Your task to perform on an android device: turn on bluetooth scan Image 0: 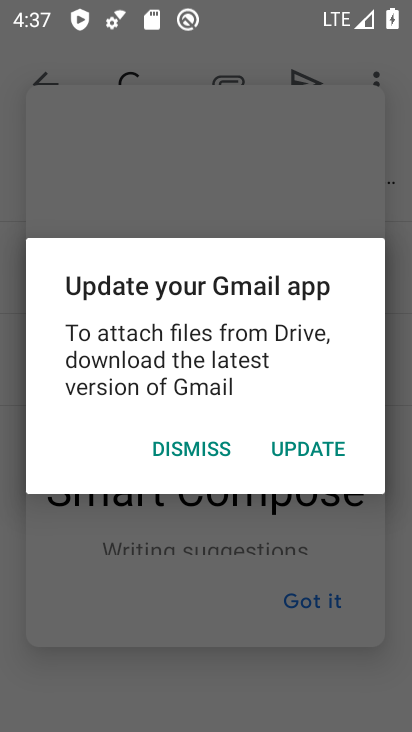
Step 0: press home button
Your task to perform on an android device: turn on bluetooth scan Image 1: 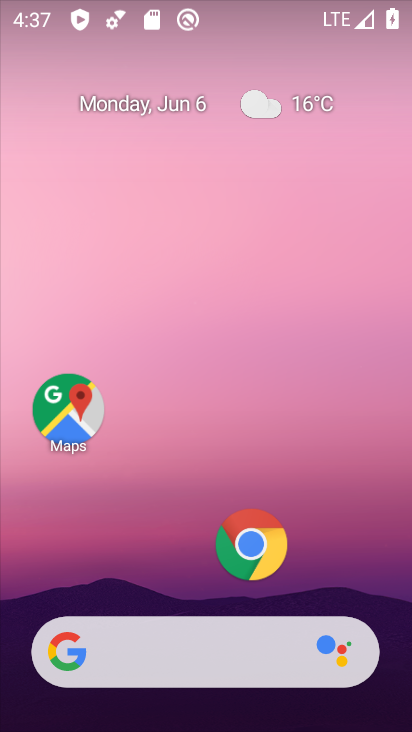
Step 1: drag from (191, 595) to (230, 49)
Your task to perform on an android device: turn on bluetooth scan Image 2: 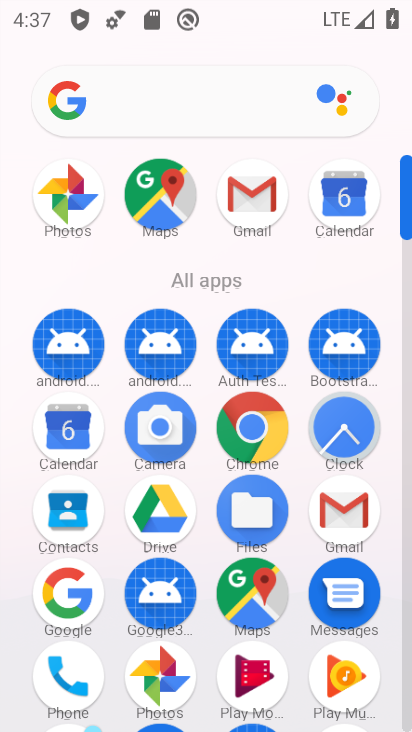
Step 2: drag from (193, 557) to (231, 149)
Your task to perform on an android device: turn on bluetooth scan Image 3: 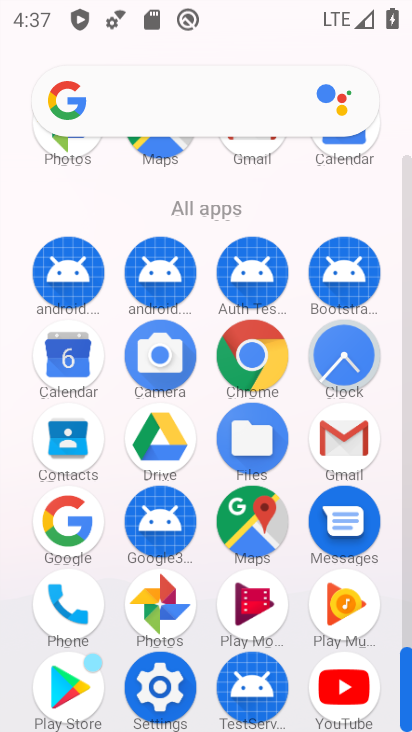
Step 3: click (151, 680)
Your task to perform on an android device: turn on bluetooth scan Image 4: 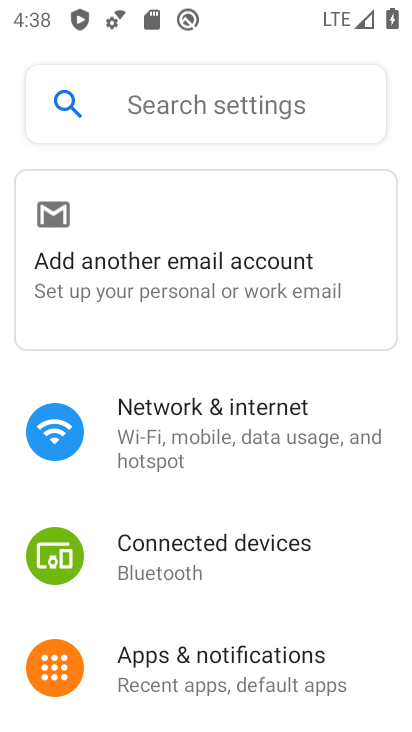
Step 4: drag from (189, 642) to (224, 263)
Your task to perform on an android device: turn on bluetooth scan Image 5: 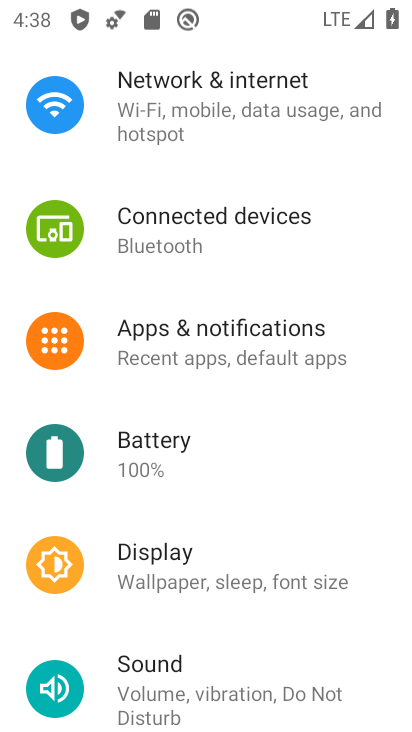
Step 5: drag from (222, 693) to (259, 179)
Your task to perform on an android device: turn on bluetooth scan Image 6: 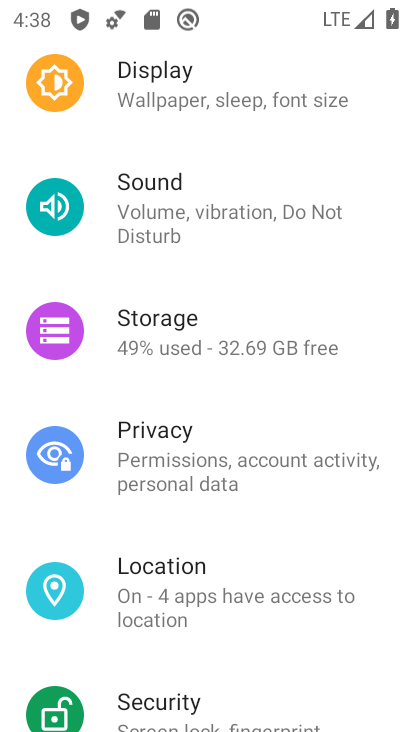
Step 6: click (230, 576)
Your task to perform on an android device: turn on bluetooth scan Image 7: 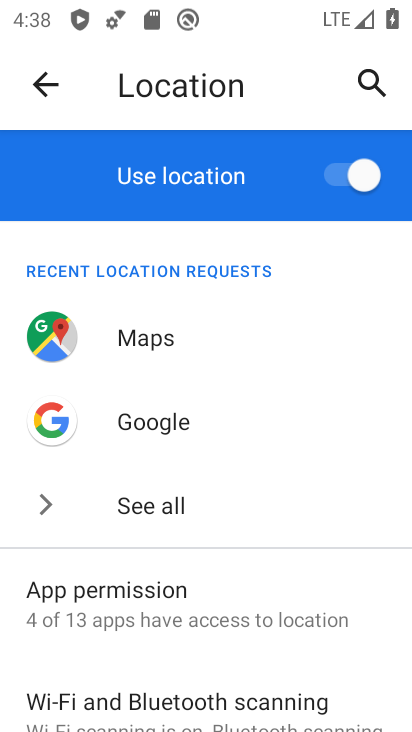
Step 7: click (216, 696)
Your task to perform on an android device: turn on bluetooth scan Image 8: 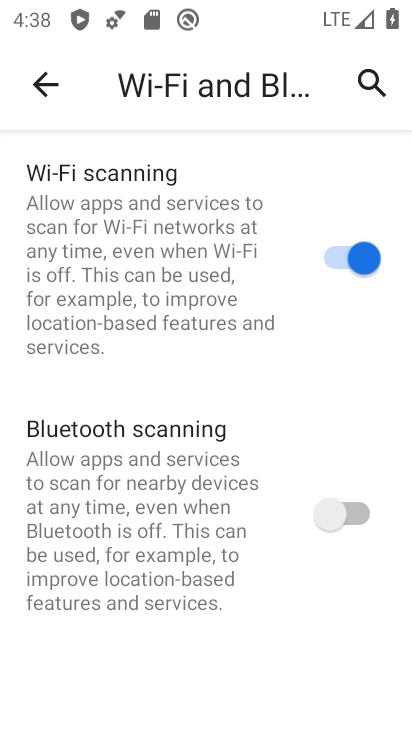
Step 8: click (354, 504)
Your task to perform on an android device: turn on bluetooth scan Image 9: 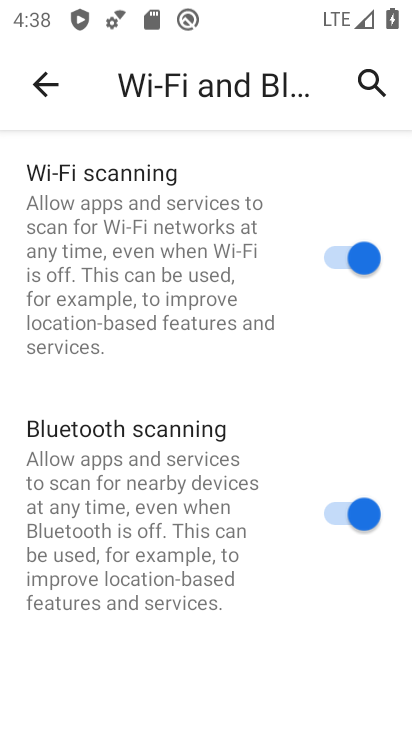
Step 9: task complete